Your task to perform on an android device: View the shopping cart on amazon. Add "logitech g pro" to the cart on amazon Image 0: 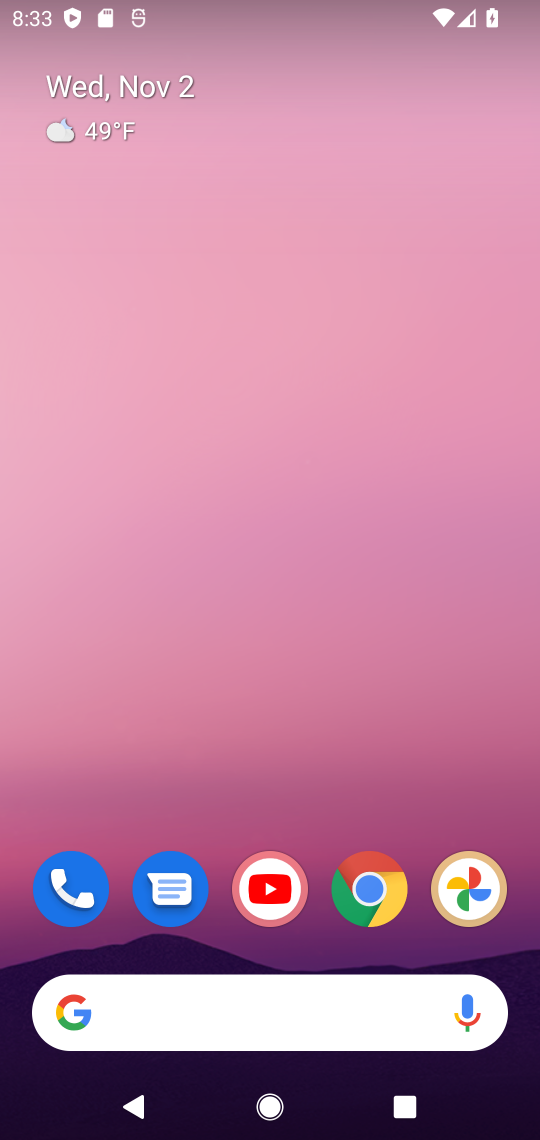
Step 0: press home button
Your task to perform on an android device: View the shopping cart on amazon. Add "logitech g pro" to the cart on amazon Image 1: 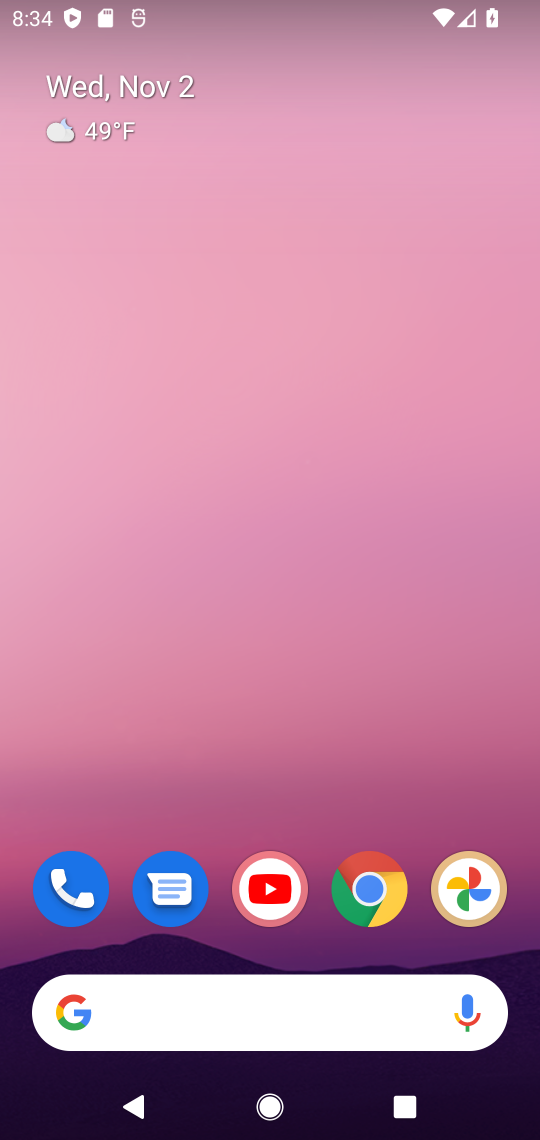
Step 1: drag from (327, 820) to (412, 10)
Your task to perform on an android device: View the shopping cart on amazon. Add "logitech g pro" to the cart on amazon Image 2: 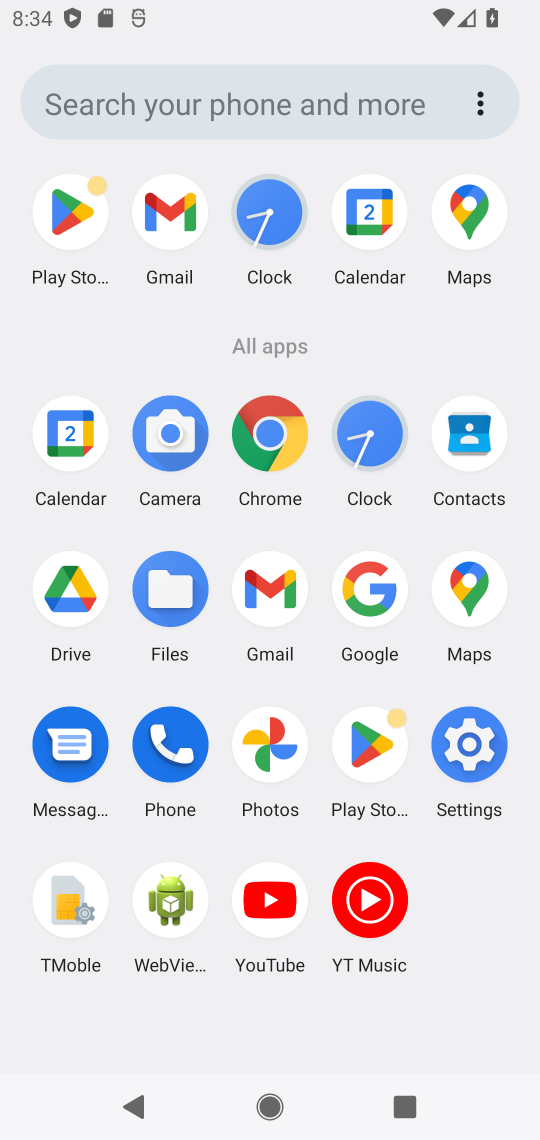
Step 2: click (260, 430)
Your task to perform on an android device: View the shopping cart on amazon. Add "logitech g pro" to the cart on amazon Image 3: 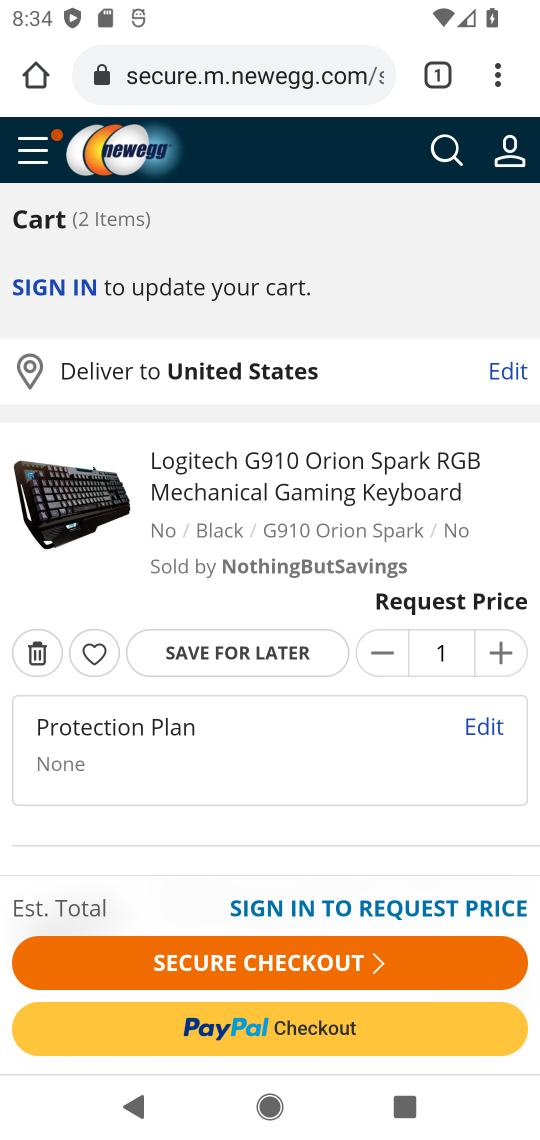
Step 3: click (215, 62)
Your task to perform on an android device: View the shopping cart on amazon. Add "logitech g pro" to the cart on amazon Image 4: 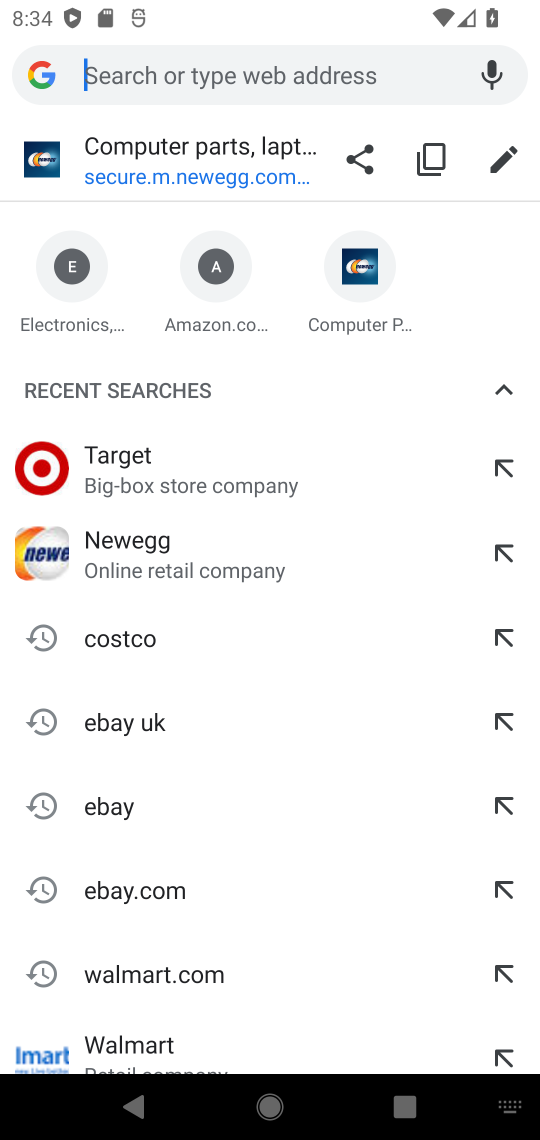
Step 4: type "amazon"
Your task to perform on an android device: View the shopping cart on amazon. Add "logitech g pro" to the cart on amazon Image 5: 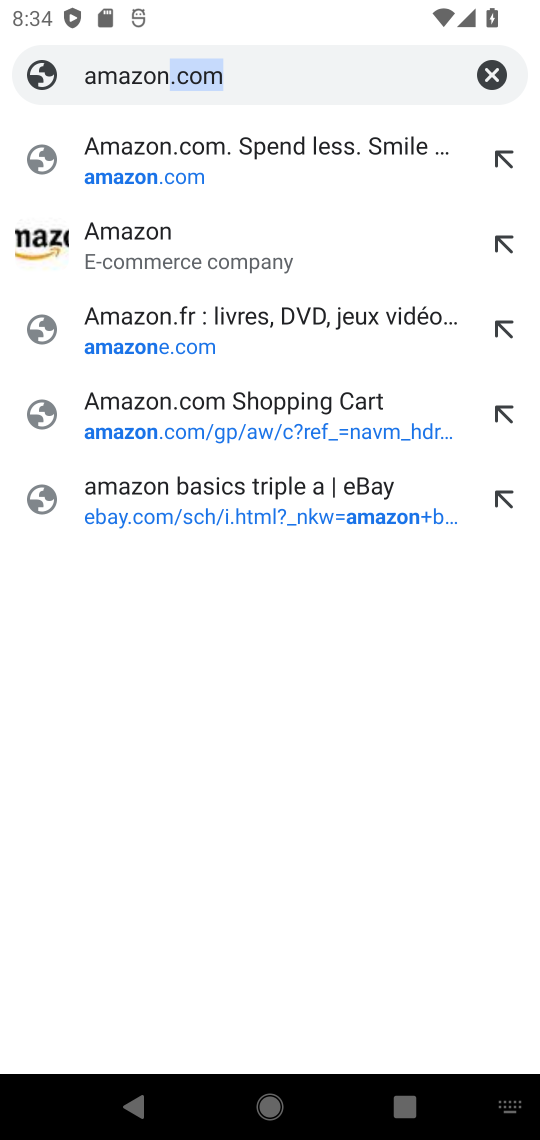
Step 5: click (140, 157)
Your task to perform on an android device: View the shopping cart on amazon. Add "logitech g pro" to the cart on amazon Image 6: 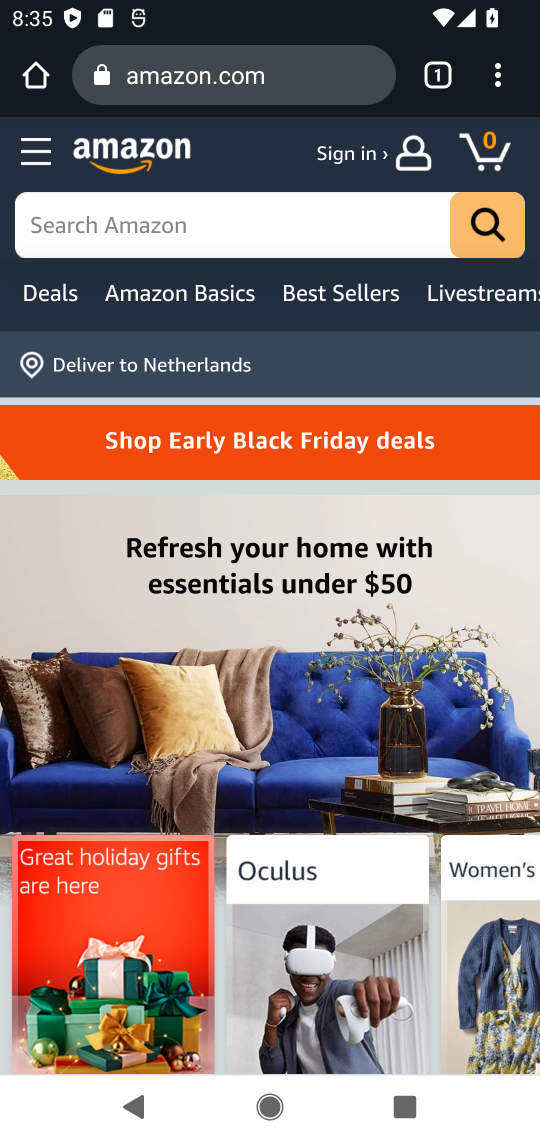
Step 6: click (209, 222)
Your task to perform on an android device: View the shopping cart on amazon. Add "logitech g pro" to the cart on amazon Image 7: 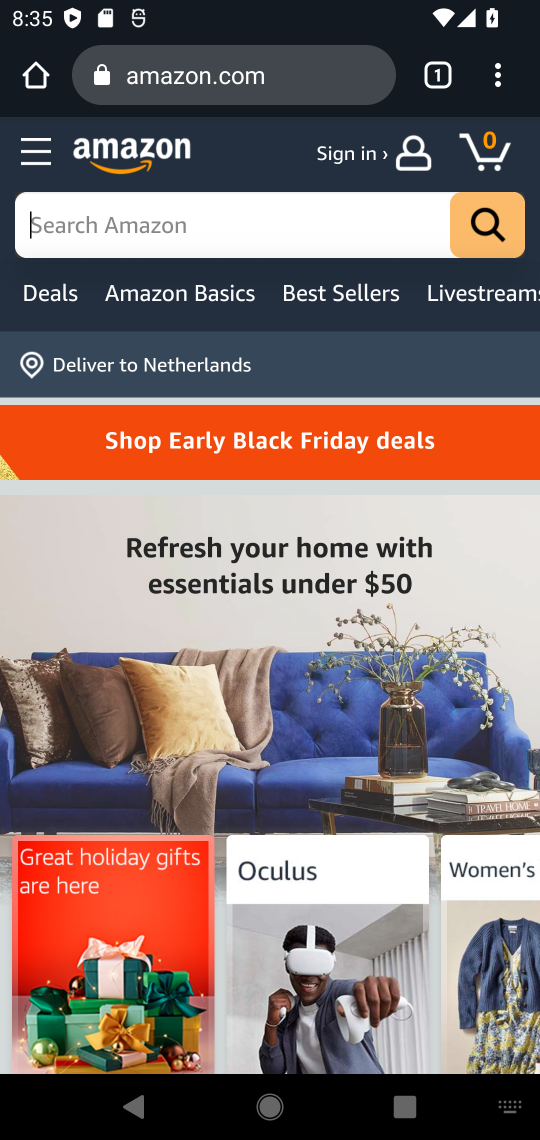
Step 7: click (104, 214)
Your task to perform on an android device: View the shopping cart on amazon. Add "logitech g pro" to the cart on amazon Image 8: 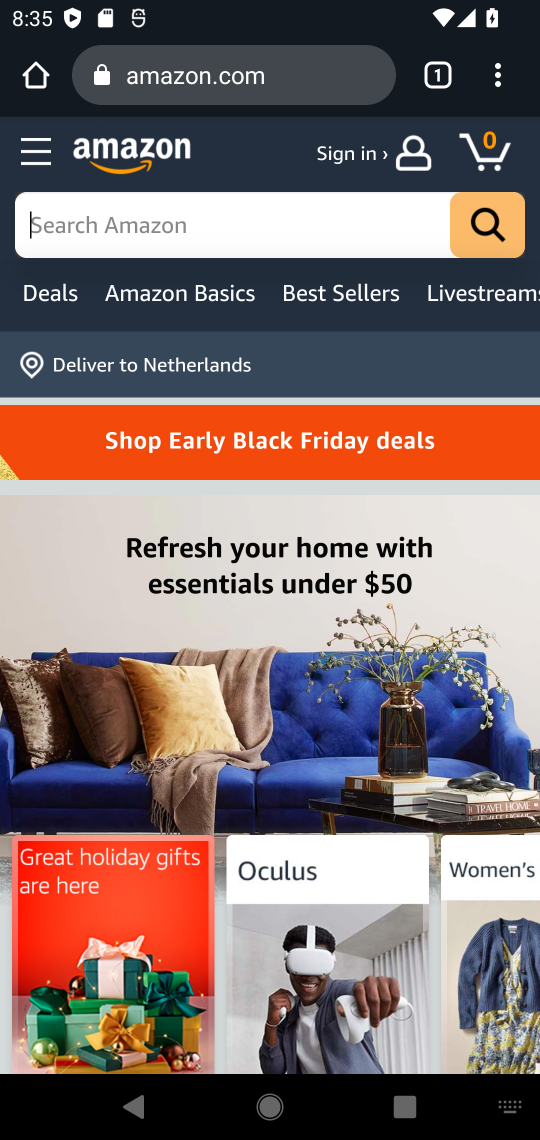
Step 8: type "logitech g pro"
Your task to perform on an android device: View the shopping cart on amazon. Add "logitech g pro" to the cart on amazon Image 9: 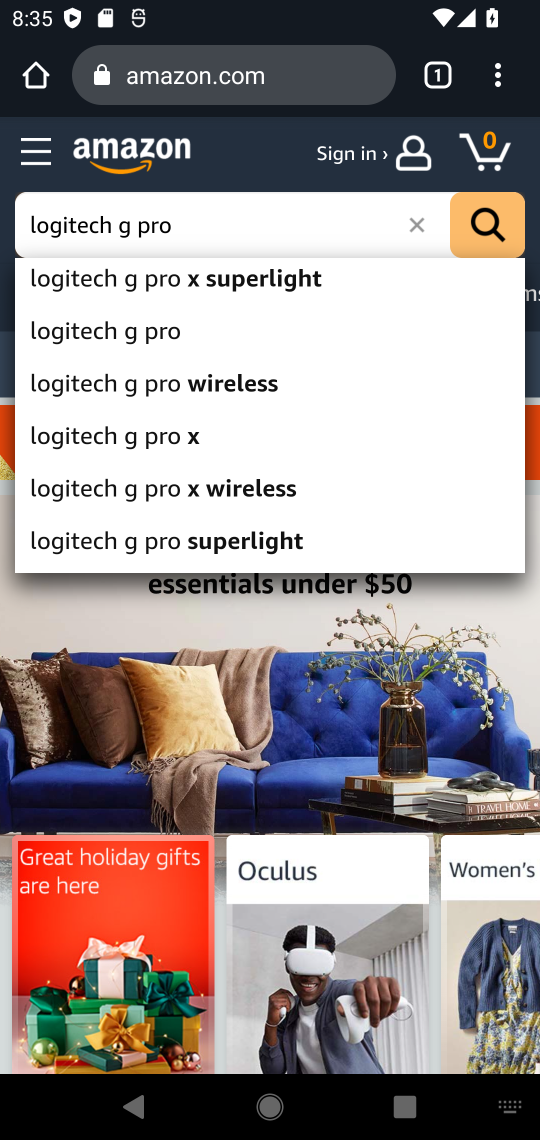
Step 9: click (142, 325)
Your task to perform on an android device: View the shopping cart on amazon. Add "logitech g pro" to the cart on amazon Image 10: 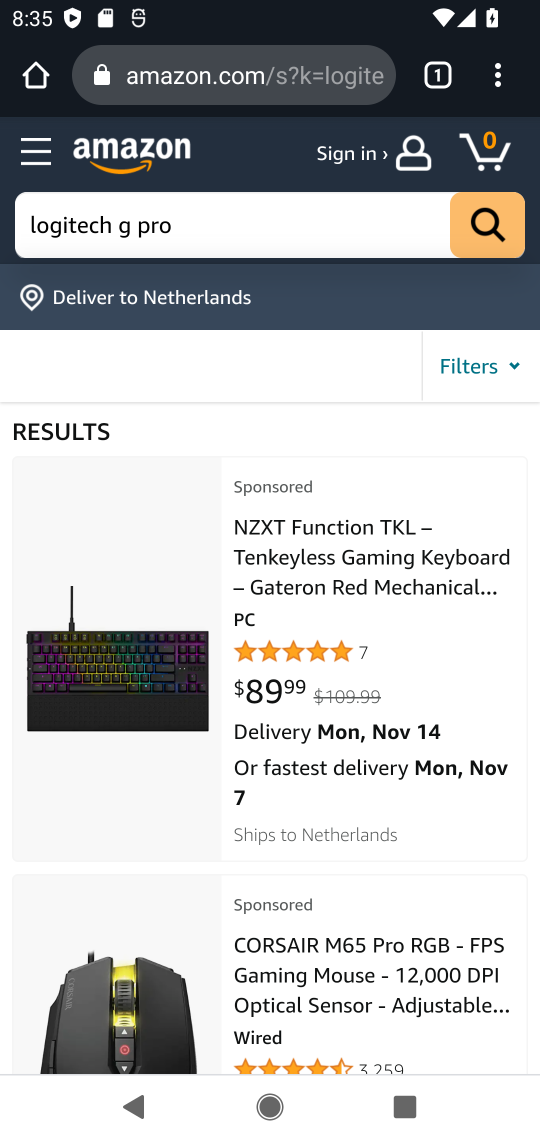
Step 10: drag from (296, 985) to (308, 369)
Your task to perform on an android device: View the shopping cart on amazon. Add "logitech g pro" to the cart on amazon Image 11: 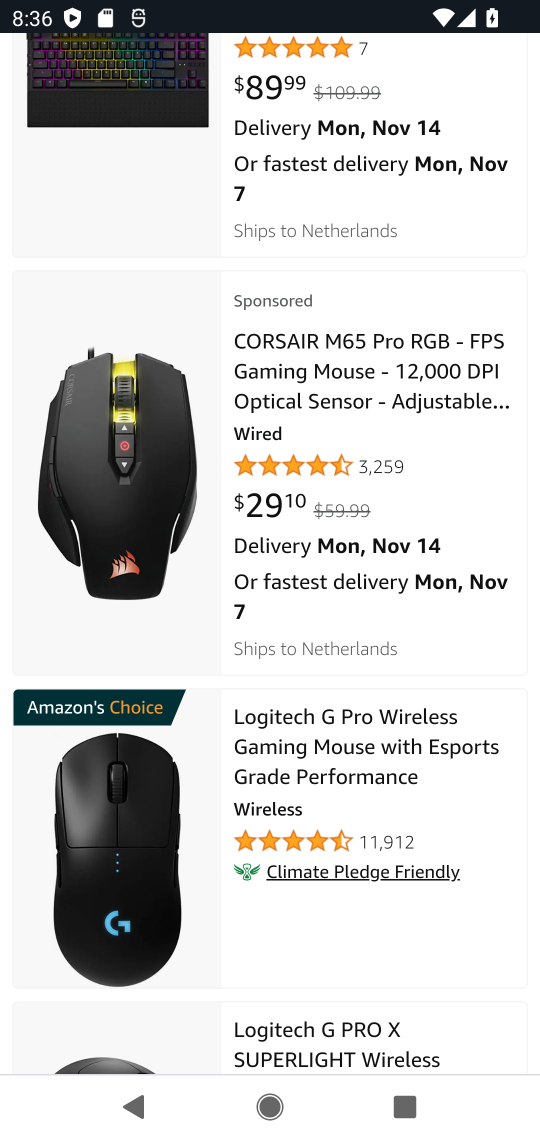
Step 11: click (306, 744)
Your task to perform on an android device: View the shopping cart on amazon. Add "logitech g pro" to the cart on amazon Image 12: 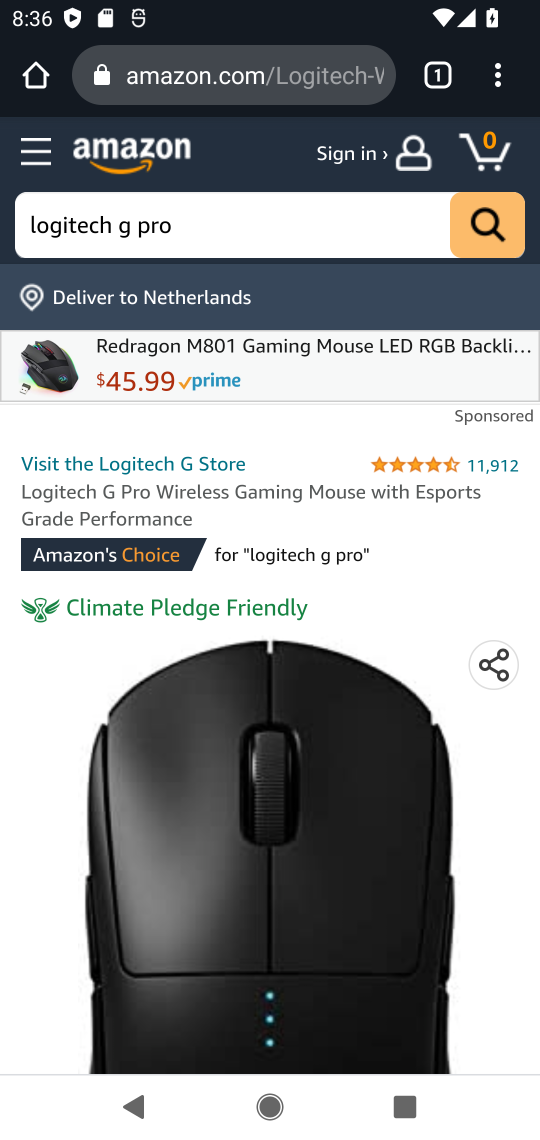
Step 12: drag from (463, 957) to (506, 389)
Your task to perform on an android device: View the shopping cart on amazon. Add "logitech g pro" to the cart on amazon Image 13: 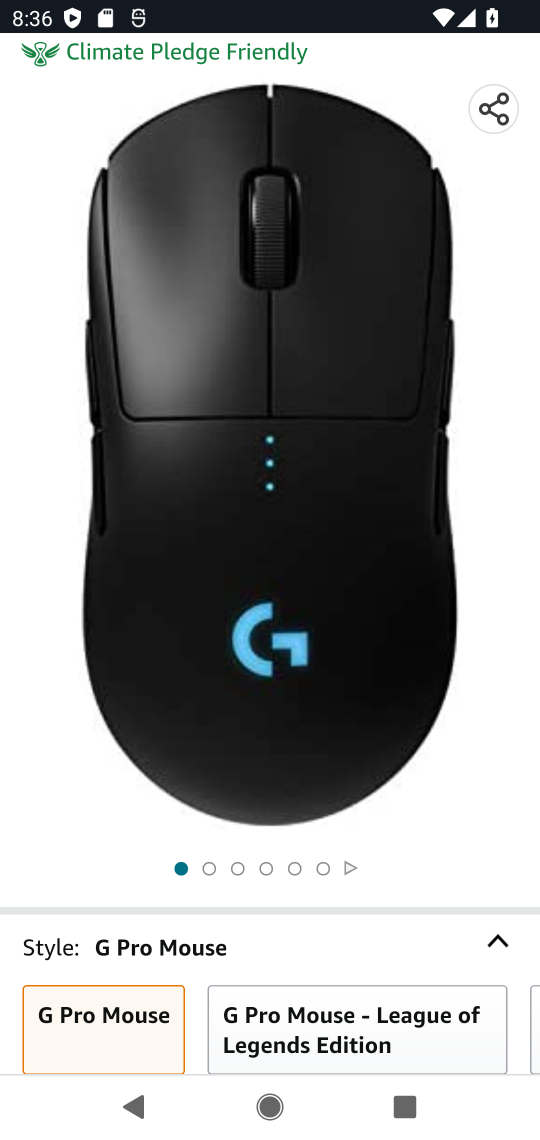
Step 13: drag from (356, 909) to (350, 389)
Your task to perform on an android device: View the shopping cart on amazon. Add "logitech g pro" to the cart on amazon Image 14: 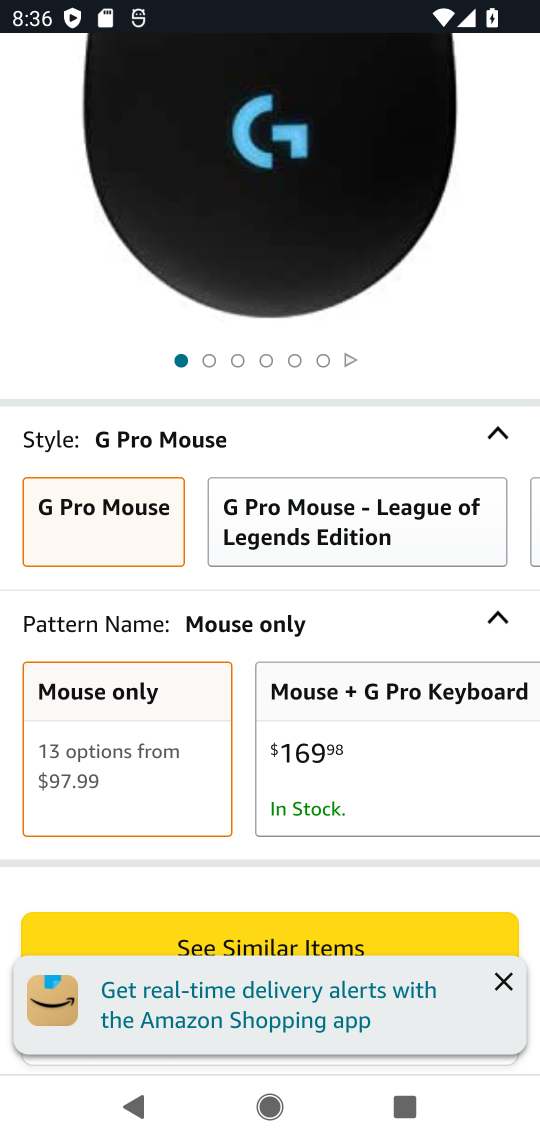
Step 14: click (242, 929)
Your task to perform on an android device: View the shopping cart on amazon. Add "logitech g pro" to the cart on amazon Image 15: 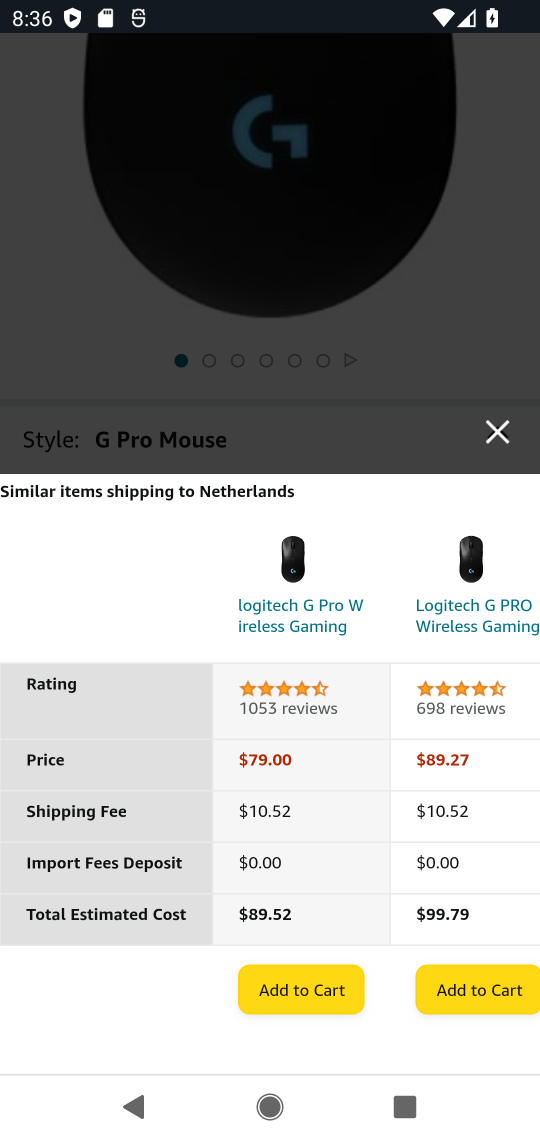
Step 15: click (305, 990)
Your task to perform on an android device: View the shopping cart on amazon. Add "logitech g pro" to the cart on amazon Image 16: 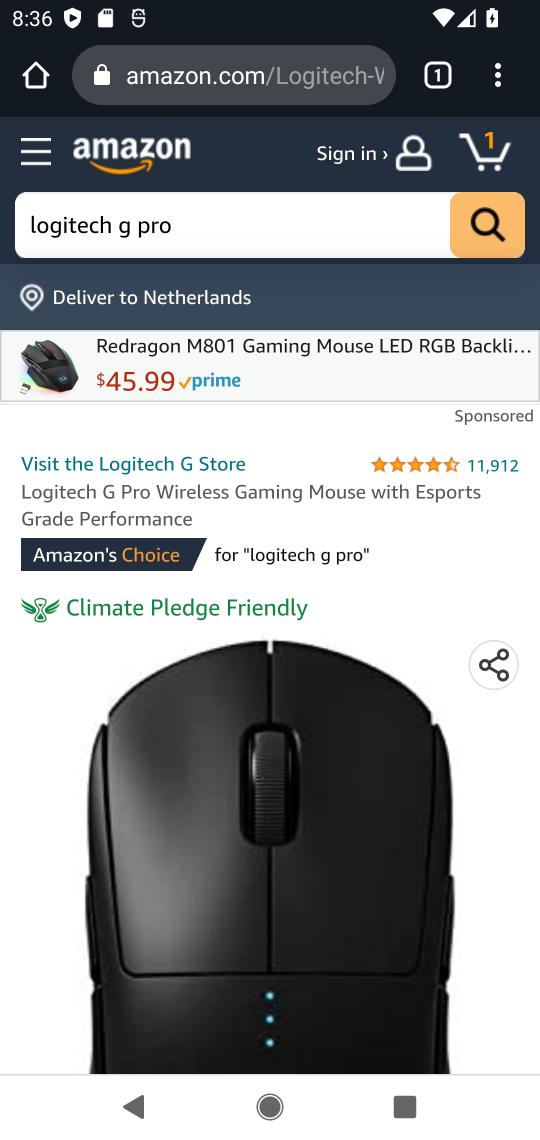
Step 16: drag from (460, 919) to (492, 155)
Your task to perform on an android device: View the shopping cart on amazon. Add "logitech g pro" to the cart on amazon Image 17: 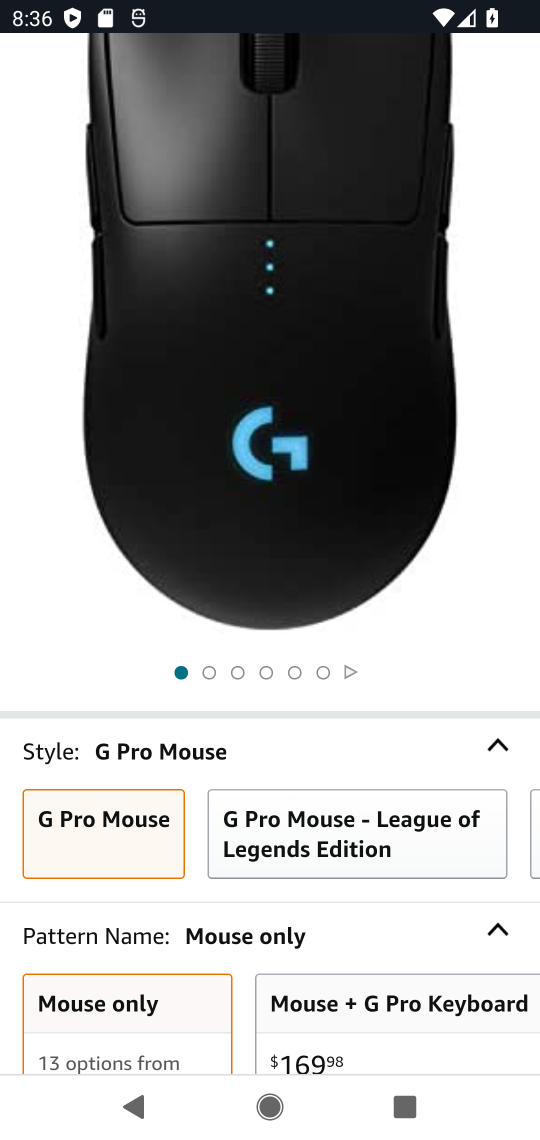
Step 17: drag from (349, 936) to (317, 397)
Your task to perform on an android device: View the shopping cart on amazon. Add "logitech g pro" to the cart on amazon Image 18: 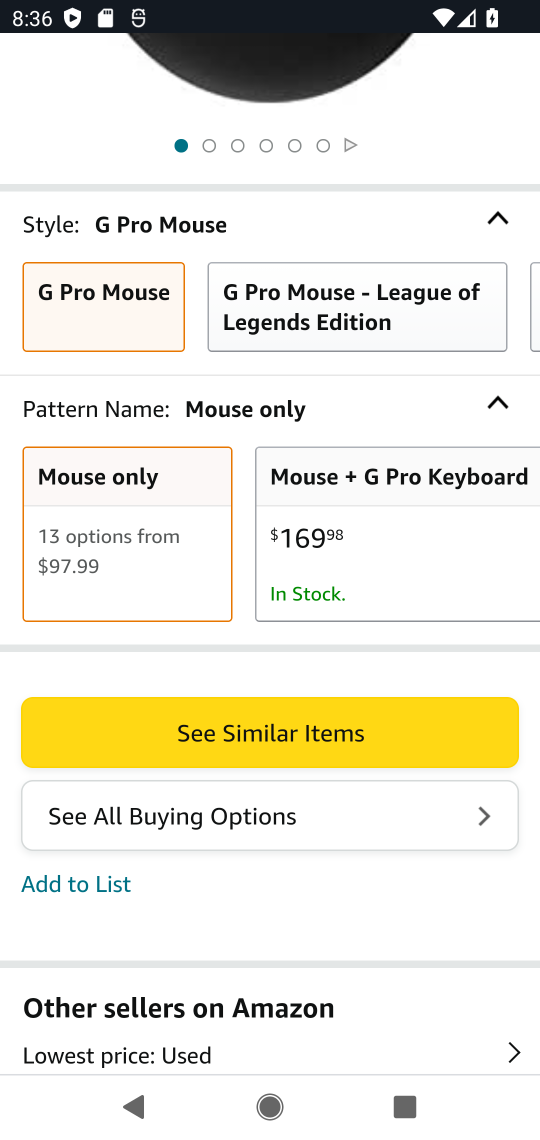
Step 18: drag from (429, 171) to (296, 1139)
Your task to perform on an android device: View the shopping cart on amazon. Add "logitech g pro" to the cart on amazon Image 19: 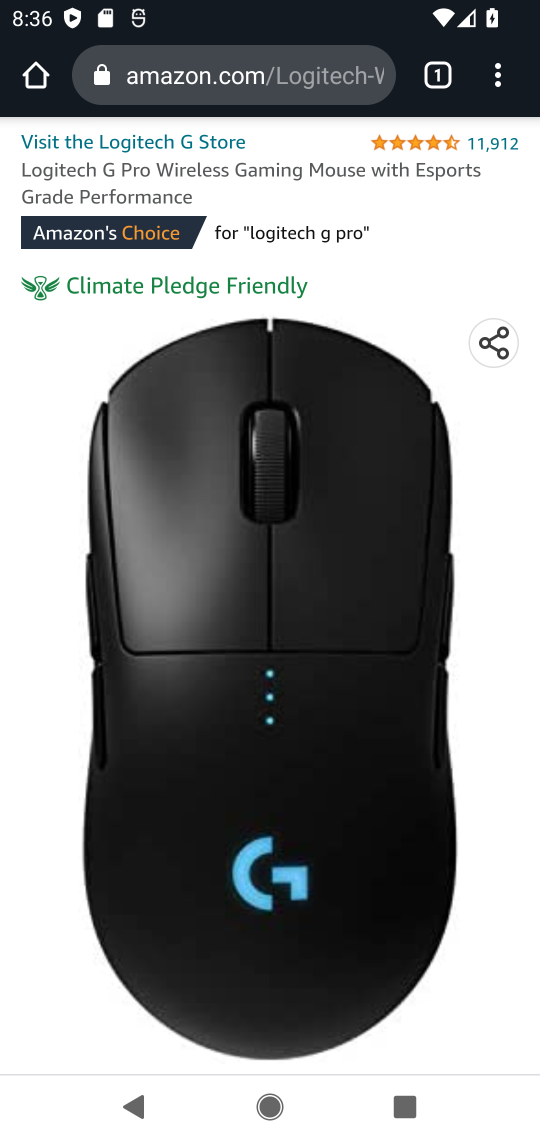
Step 19: drag from (434, 196) to (283, 1128)
Your task to perform on an android device: View the shopping cart on amazon. Add "logitech g pro" to the cart on amazon Image 20: 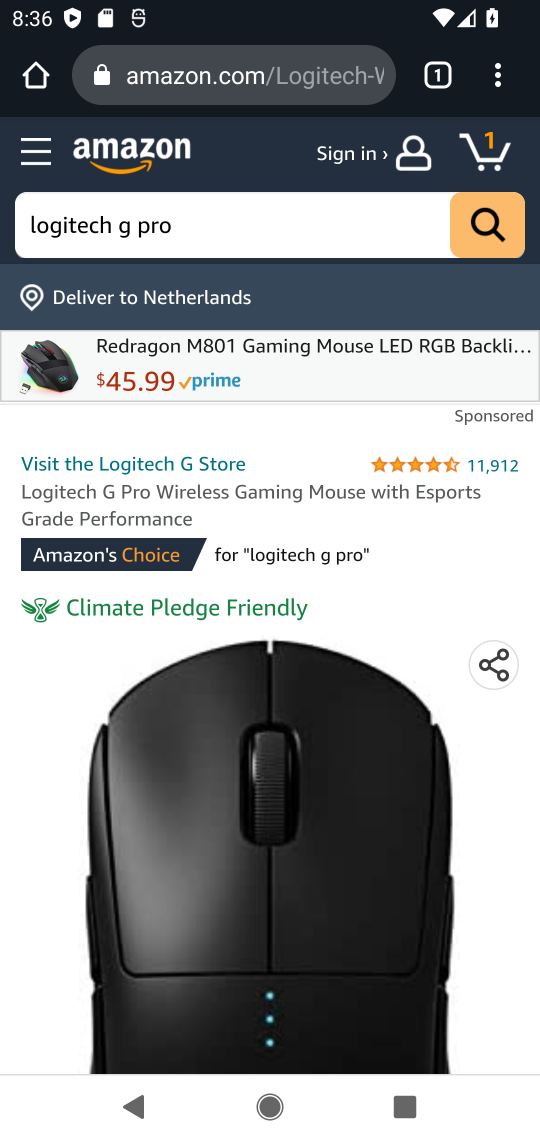
Step 20: click (492, 152)
Your task to perform on an android device: View the shopping cart on amazon. Add "logitech g pro" to the cart on amazon Image 21: 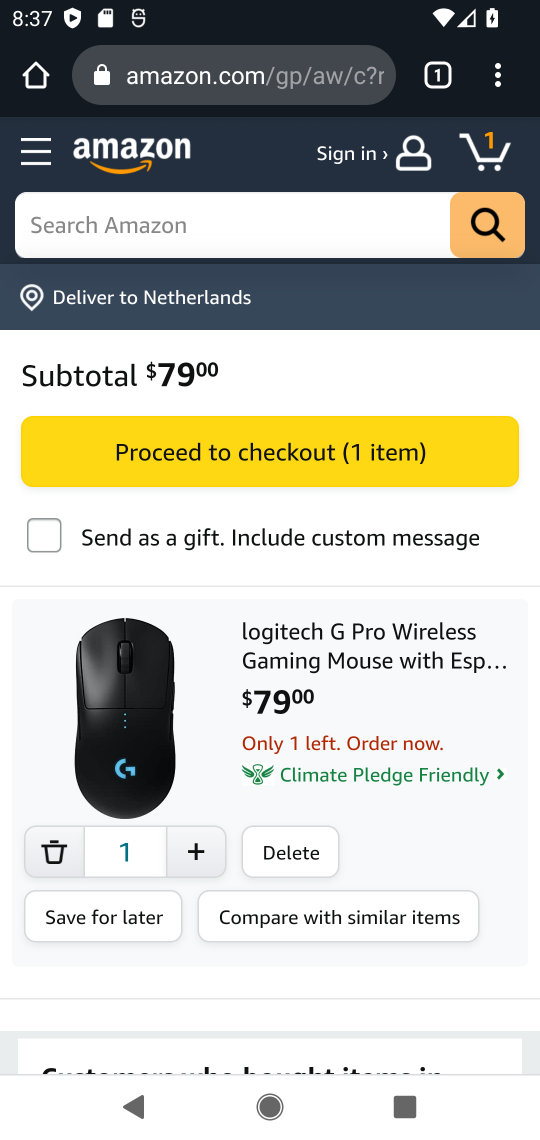
Step 21: task complete